Your task to perform on an android device: Open location settings Image 0: 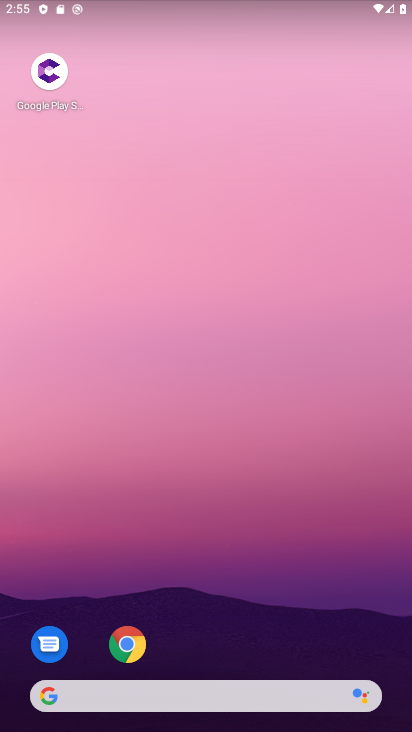
Step 0: drag from (295, 668) to (305, 49)
Your task to perform on an android device: Open location settings Image 1: 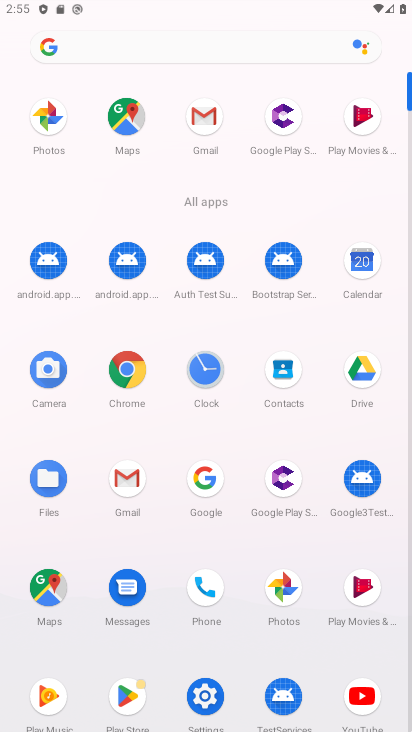
Step 1: click (204, 701)
Your task to perform on an android device: Open location settings Image 2: 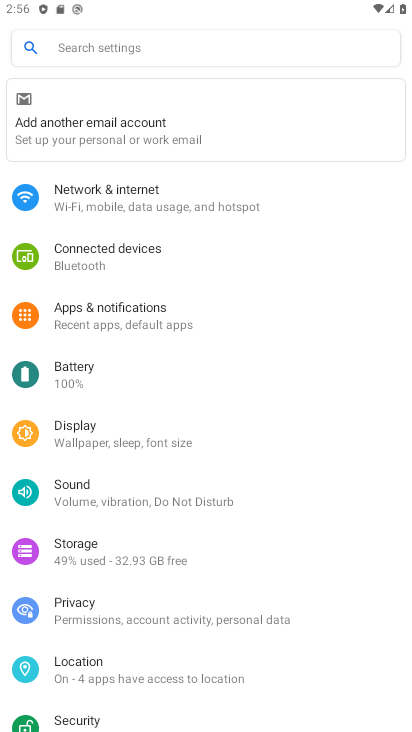
Step 2: click (74, 662)
Your task to perform on an android device: Open location settings Image 3: 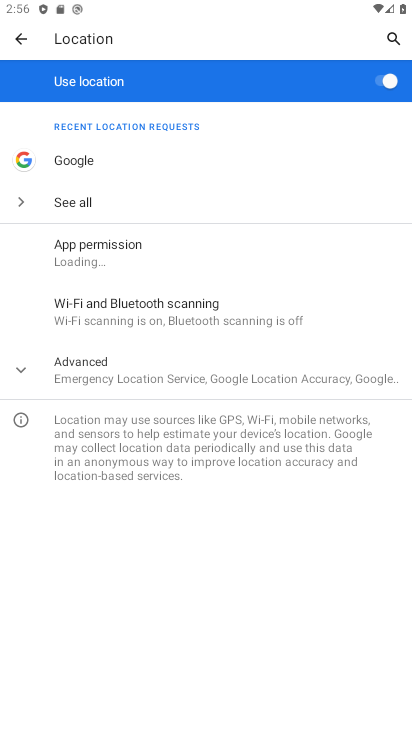
Step 3: click (76, 659)
Your task to perform on an android device: Open location settings Image 4: 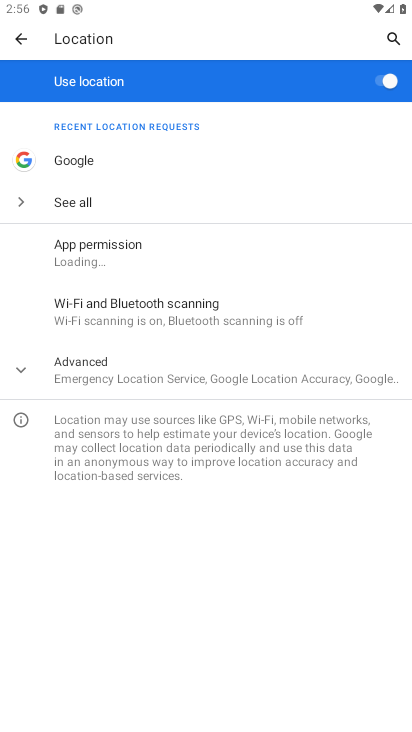
Step 4: click (76, 666)
Your task to perform on an android device: Open location settings Image 5: 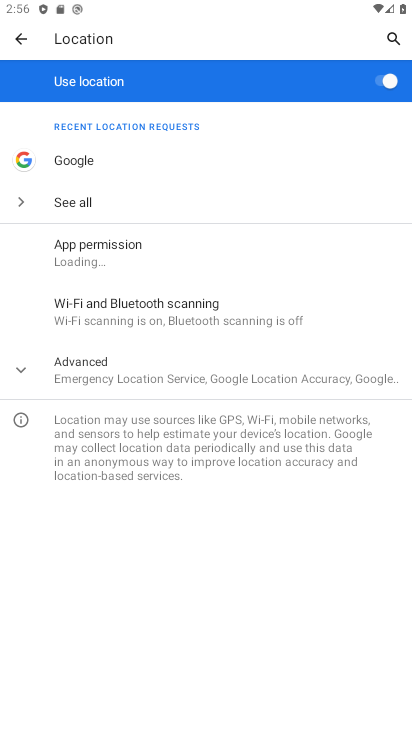
Step 5: click (74, 369)
Your task to perform on an android device: Open location settings Image 6: 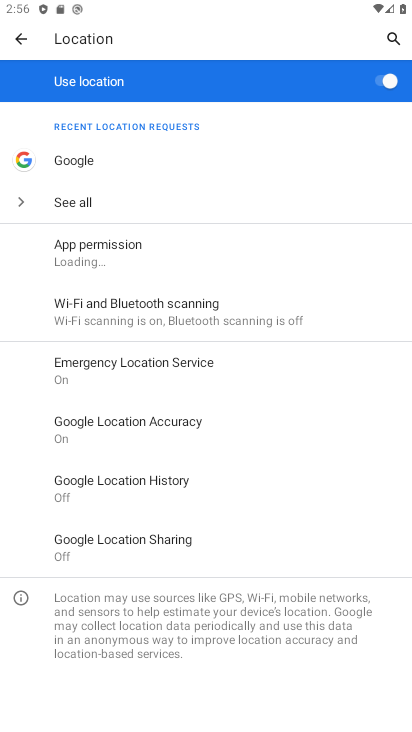
Step 6: task complete